Your task to perform on an android device: Open my contact list Image 0: 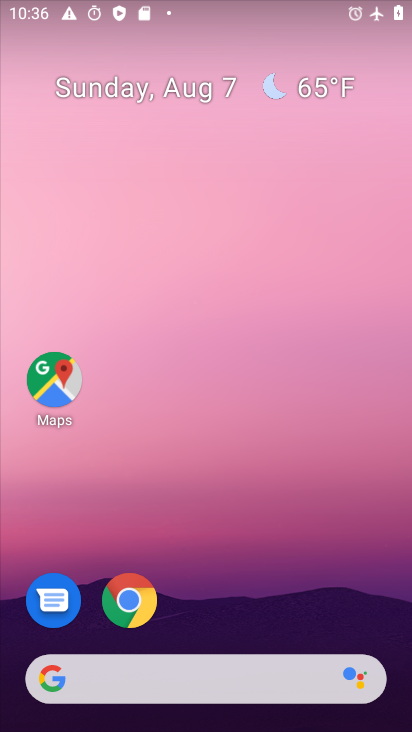
Step 0: drag from (206, 432) to (279, 0)
Your task to perform on an android device: Open my contact list Image 1: 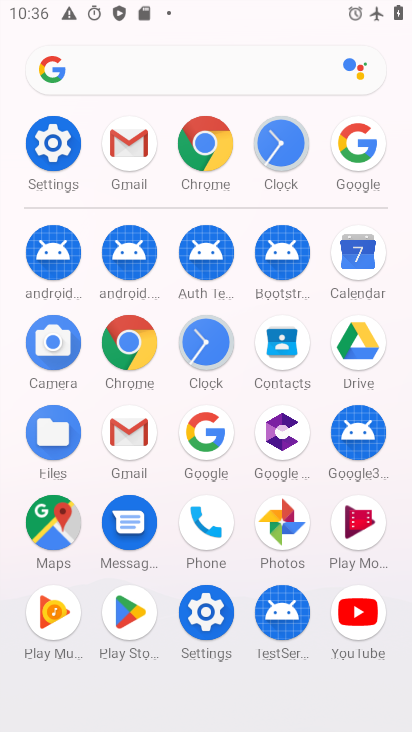
Step 1: click (274, 352)
Your task to perform on an android device: Open my contact list Image 2: 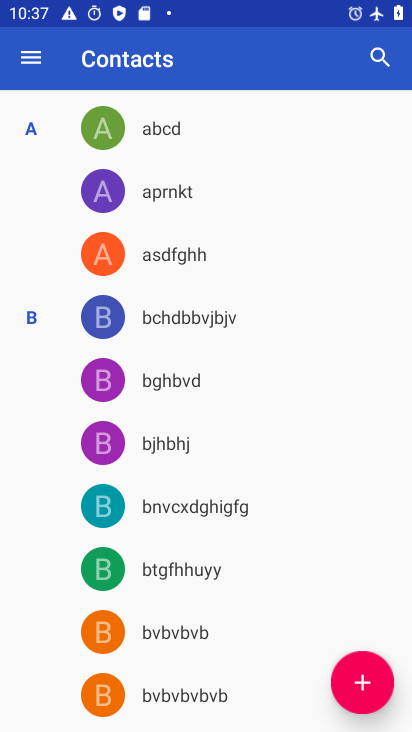
Step 2: task complete